Your task to perform on an android device: Open the web browser Image 0: 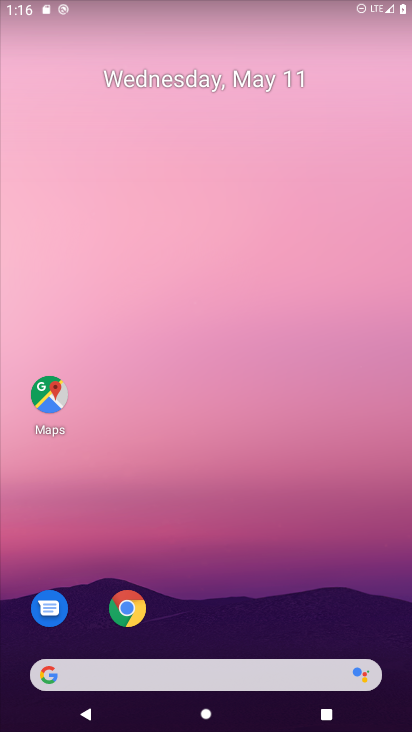
Step 0: click (137, 605)
Your task to perform on an android device: Open the web browser Image 1: 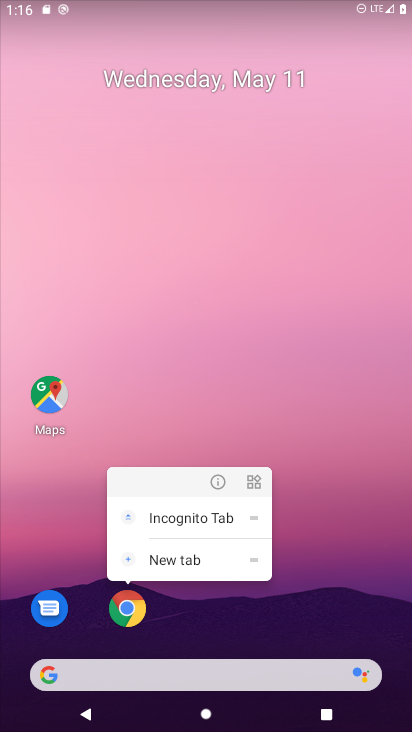
Step 1: click (137, 605)
Your task to perform on an android device: Open the web browser Image 2: 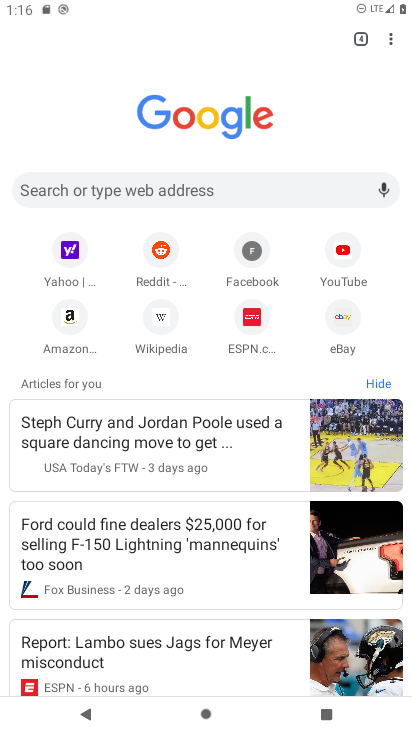
Step 2: click (258, 187)
Your task to perform on an android device: Open the web browser Image 3: 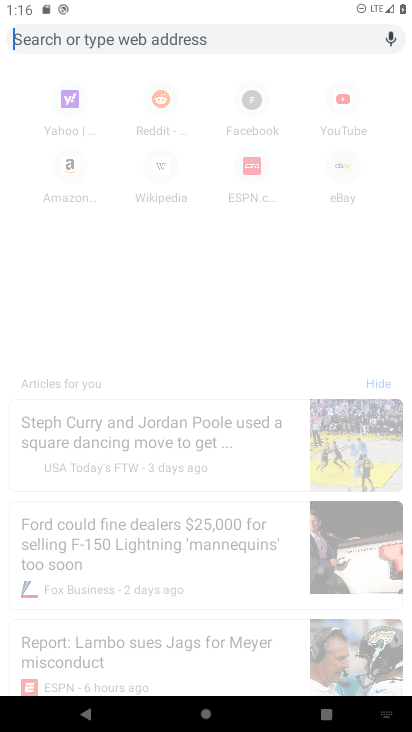
Step 3: task complete